Your task to perform on an android device: turn on the 12-hour format for clock Image 0: 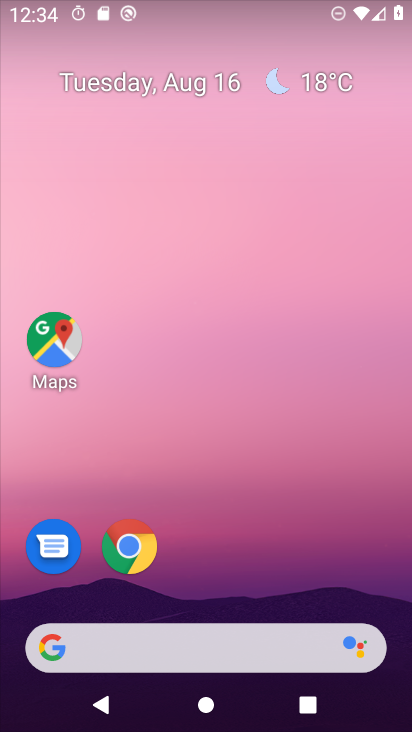
Step 0: drag from (242, 609) to (215, 69)
Your task to perform on an android device: turn on the 12-hour format for clock Image 1: 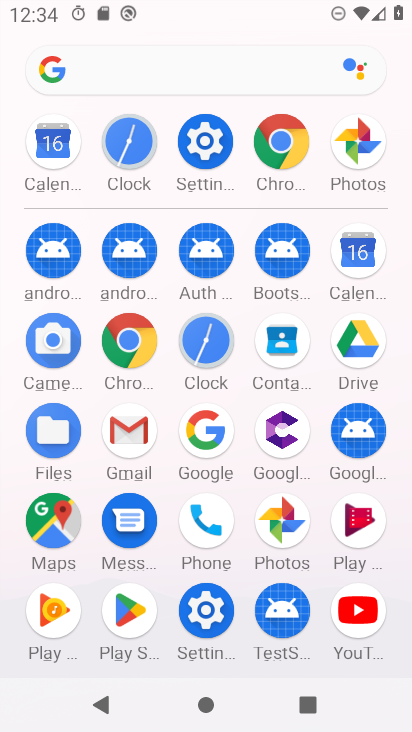
Step 1: click (210, 349)
Your task to perform on an android device: turn on the 12-hour format for clock Image 2: 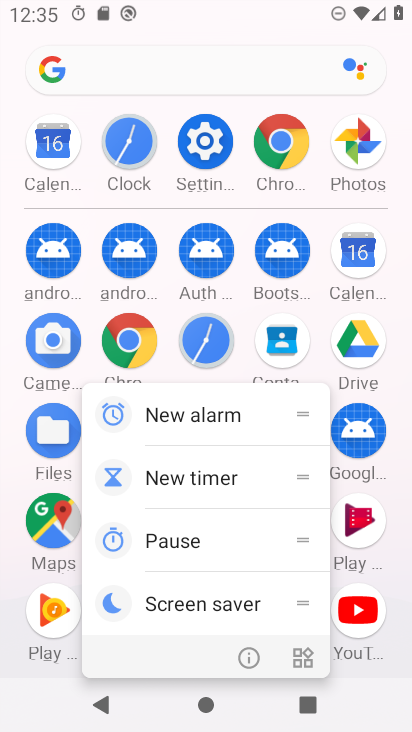
Step 2: click (209, 350)
Your task to perform on an android device: turn on the 12-hour format for clock Image 3: 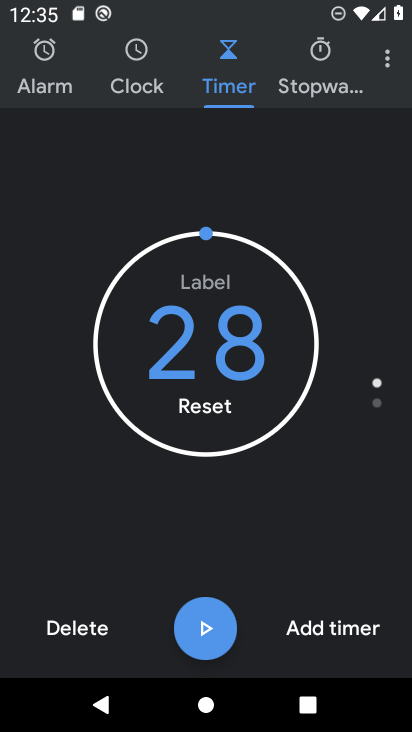
Step 3: click (388, 63)
Your task to perform on an android device: turn on the 12-hour format for clock Image 4: 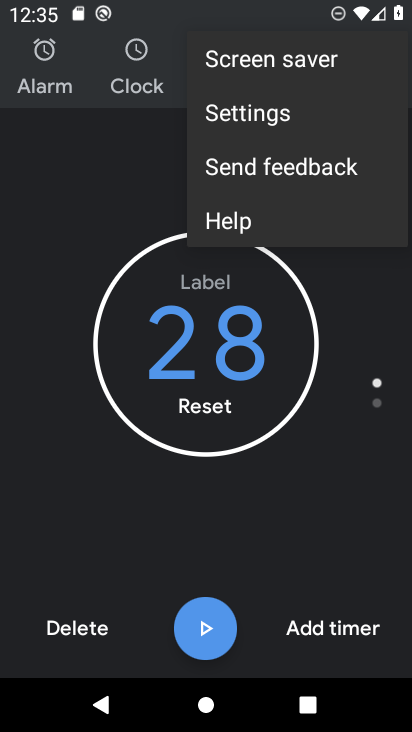
Step 4: click (256, 111)
Your task to perform on an android device: turn on the 12-hour format for clock Image 5: 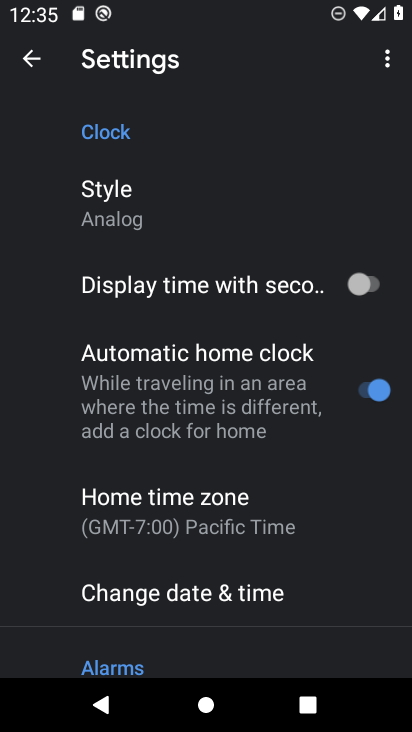
Step 5: drag from (186, 649) to (187, 355)
Your task to perform on an android device: turn on the 12-hour format for clock Image 6: 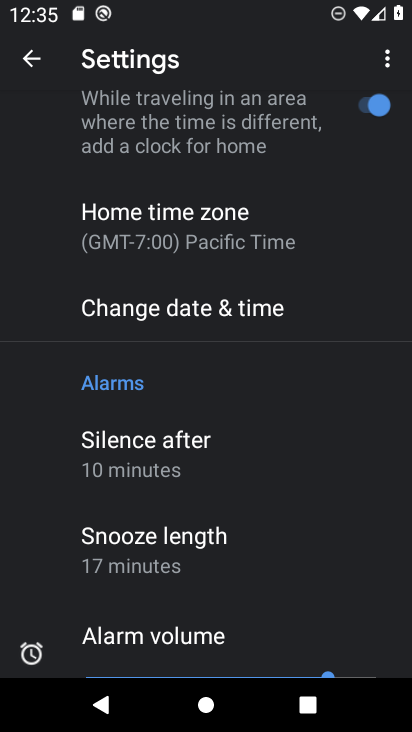
Step 6: click (241, 310)
Your task to perform on an android device: turn on the 12-hour format for clock Image 7: 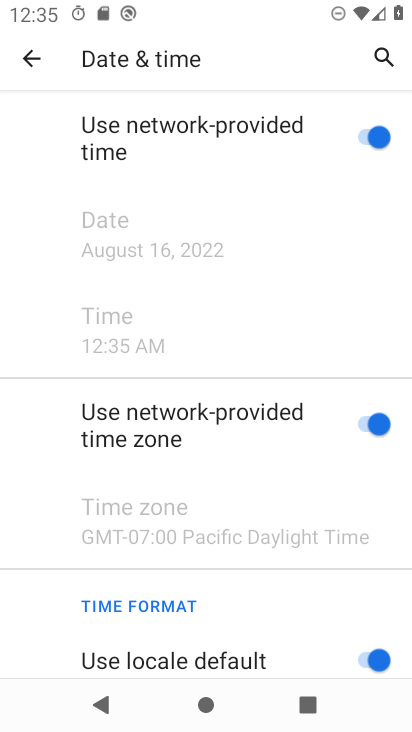
Step 7: task complete